Your task to perform on an android device: Clear the cart on amazon. Search for "logitech g933" on amazon, select the first entry, add it to the cart, then select checkout. Image 0: 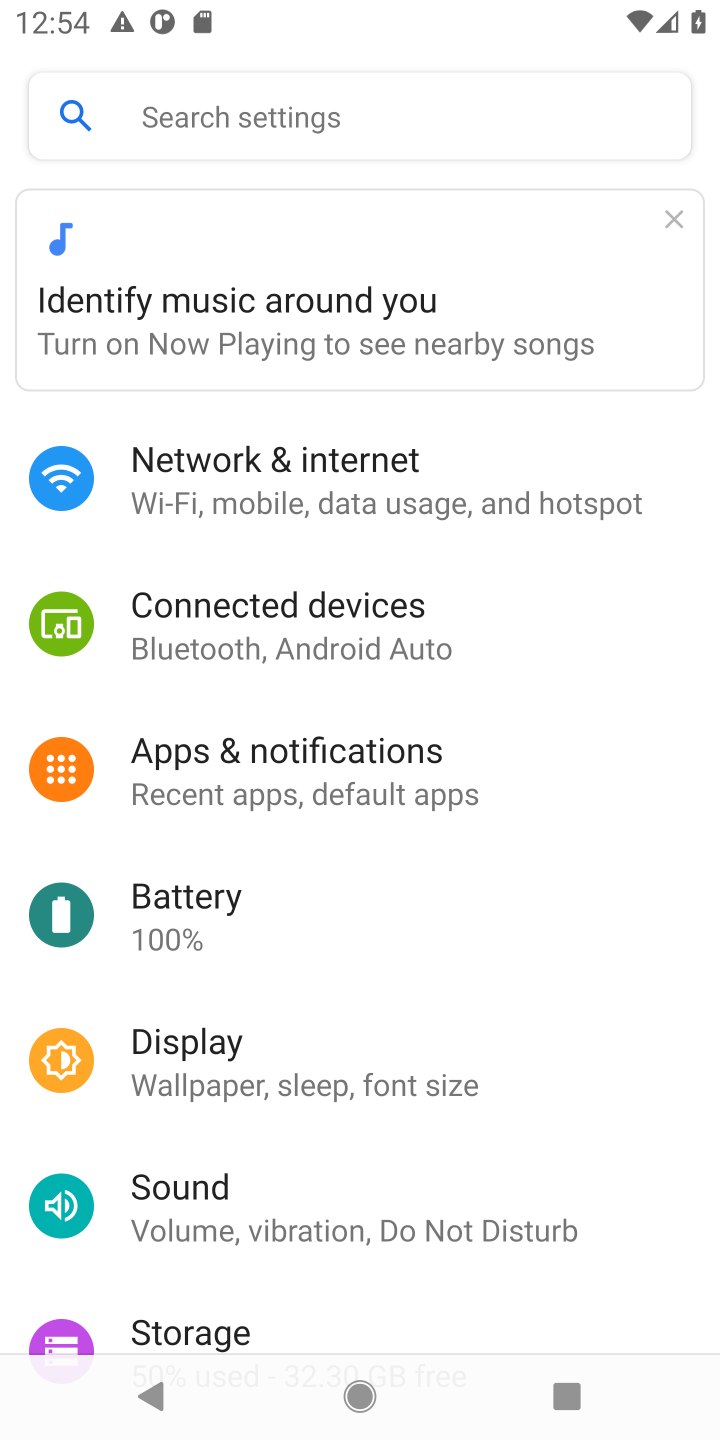
Step 0: press home button
Your task to perform on an android device: Clear the cart on amazon. Search for "logitech g933" on amazon, select the first entry, add it to the cart, then select checkout. Image 1: 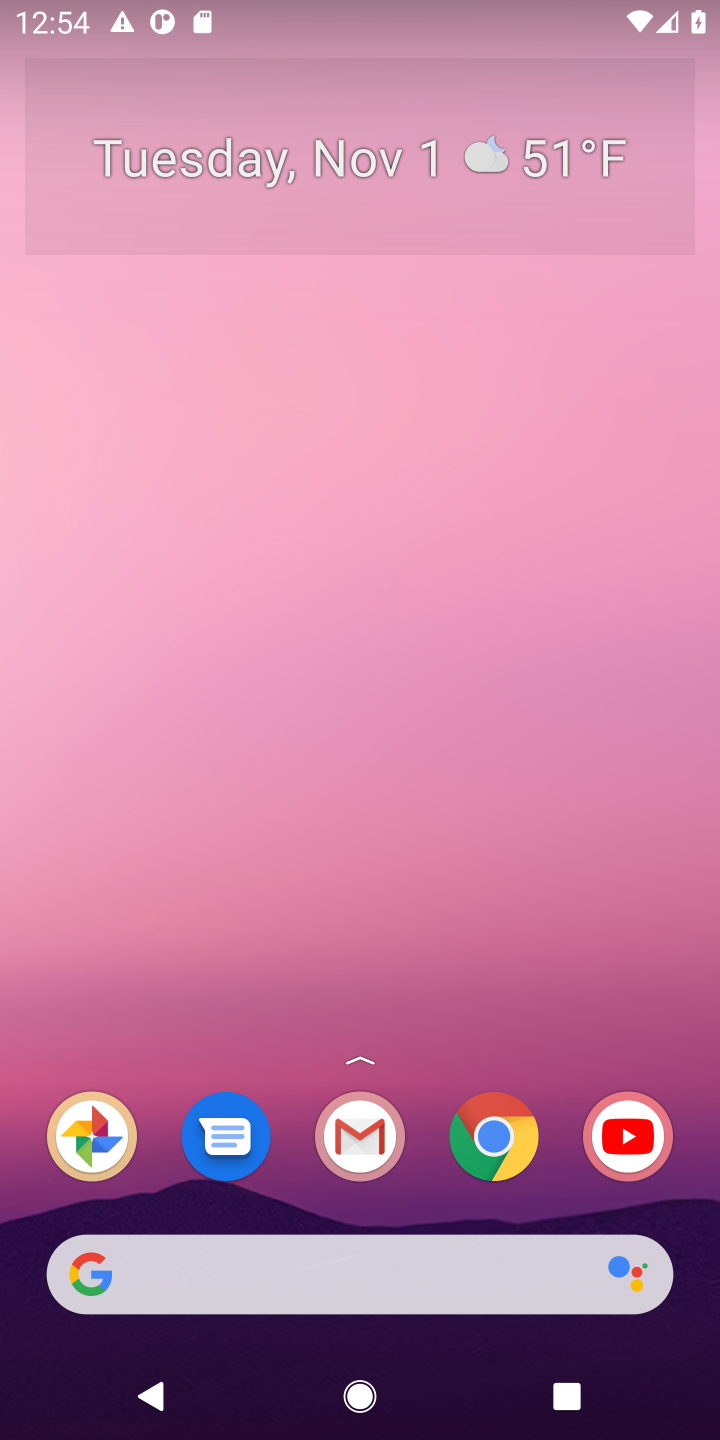
Step 1: click (166, 1276)
Your task to perform on an android device: Clear the cart on amazon. Search for "logitech g933" on amazon, select the first entry, add it to the cart, then select checkout. Image 2: 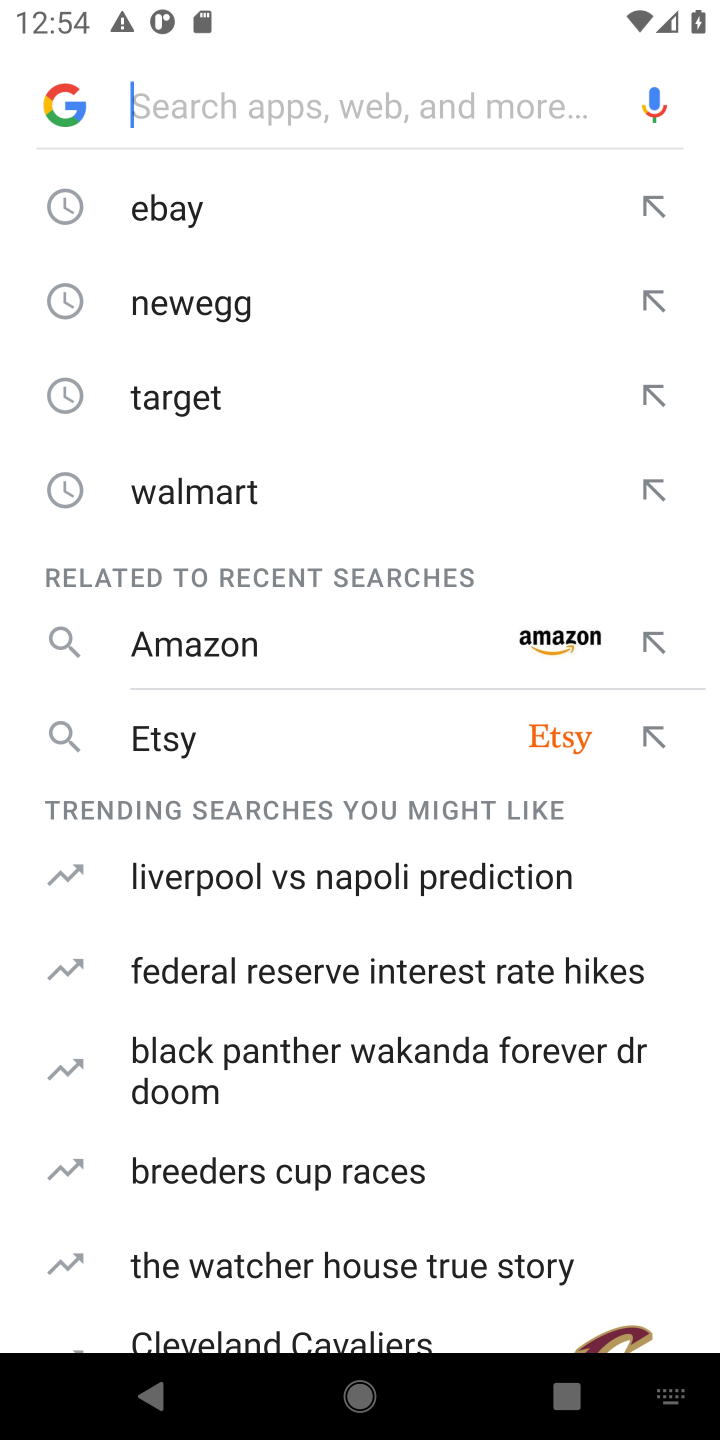
Step 2: type "amazon"
Your task to perform on an android device: Clear the cart on amazon. Search for "logitech g933" on amazon, select the first entry, add it to the cart, then select checkout. Image 3: 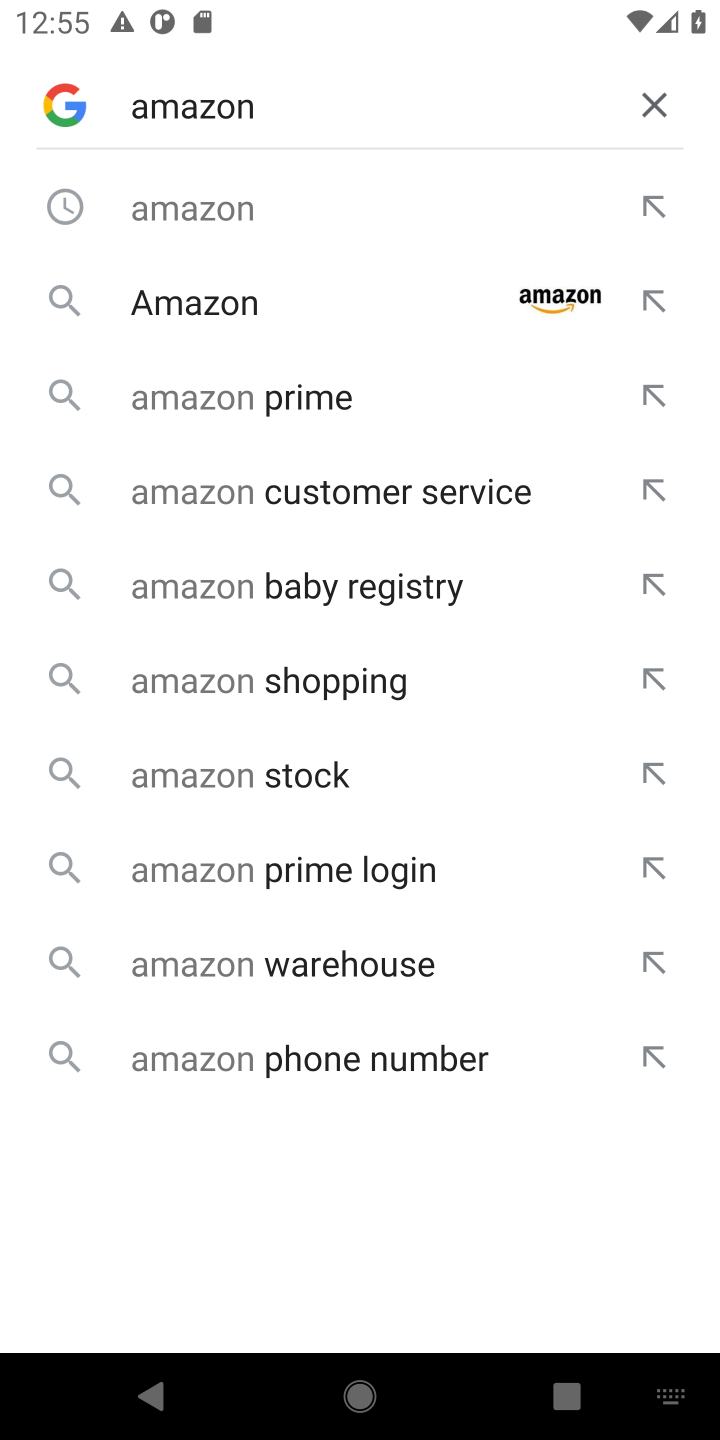
Step 3: press enter
Your task to perform on an android device: Clear the cart on amazon. Search for "logitech g933" on amazon, select the first entry, add it to the cart, then select checkout. Image 4: 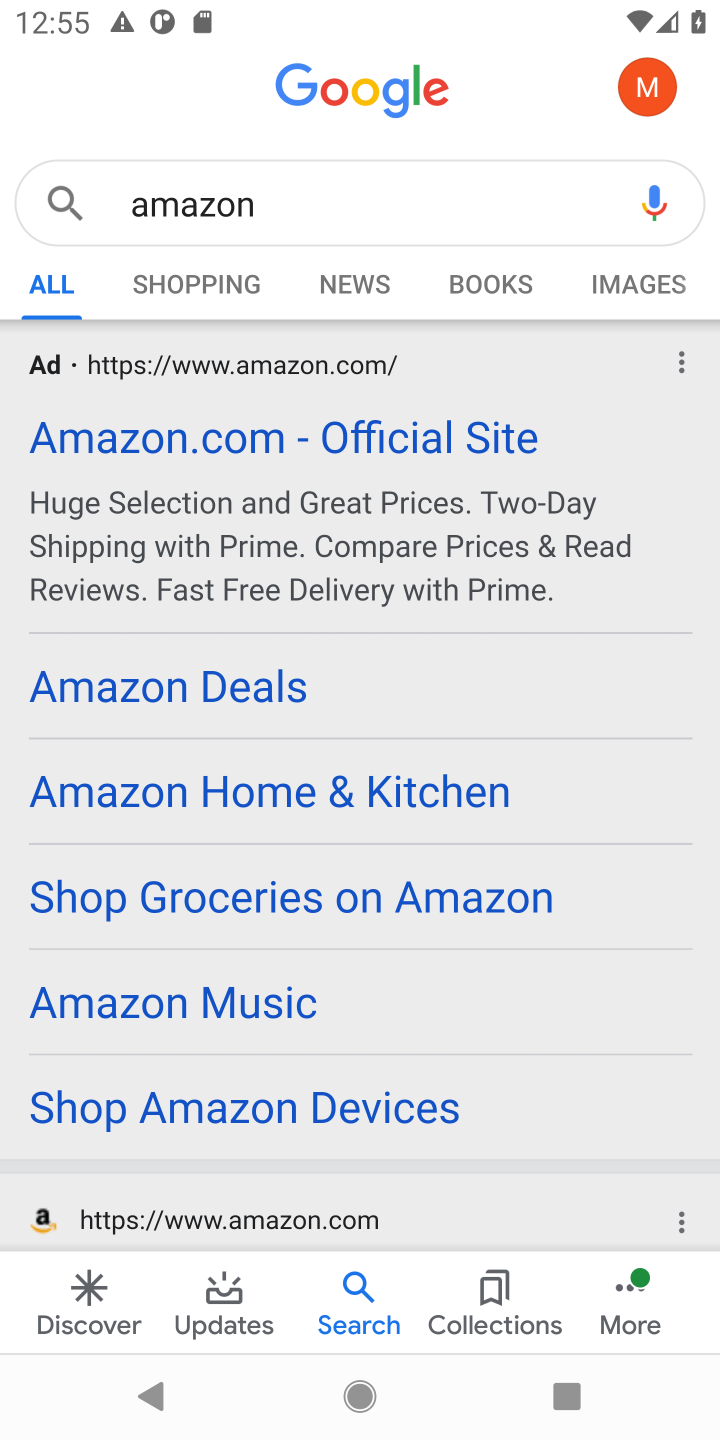
Step 4: click (207, 462)
Your task to perform on an android device: Clear the cart on amazon. Search for "logitech g933" on amazon, select the first entry, add it to the cart, then select checkout. Image 5: 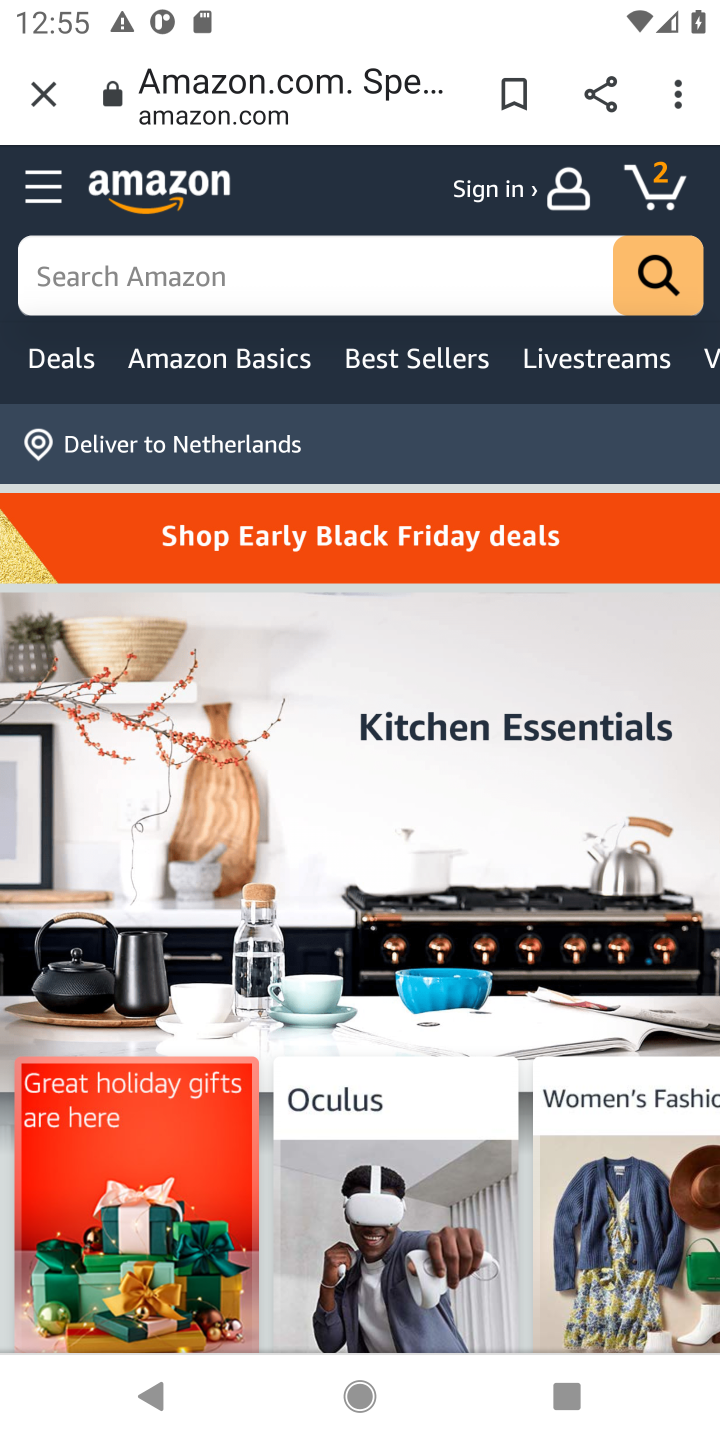
Step 5: click (131, 271)
Your task to perform on an android device: Clear the cart on amazon. Search for "logitech g933" on amazon, select the first entry, add it to the cart, then select checkout. Image 6: 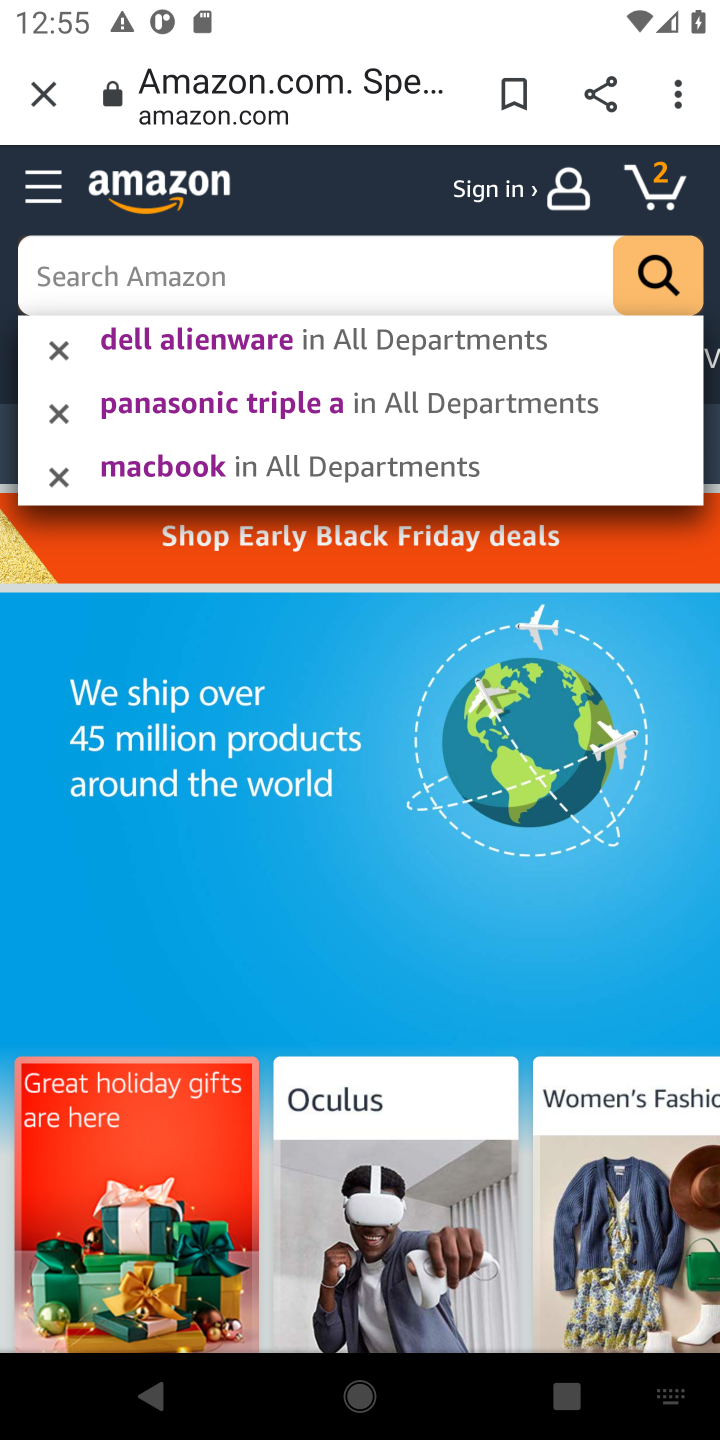
Step 6: type "logitech g933"
Your task to perform on an android device: Clear the cart on amazon. Search for "logitech g933" on amazon, select the first entry, add it to the cart, then select checkout. Image 7: 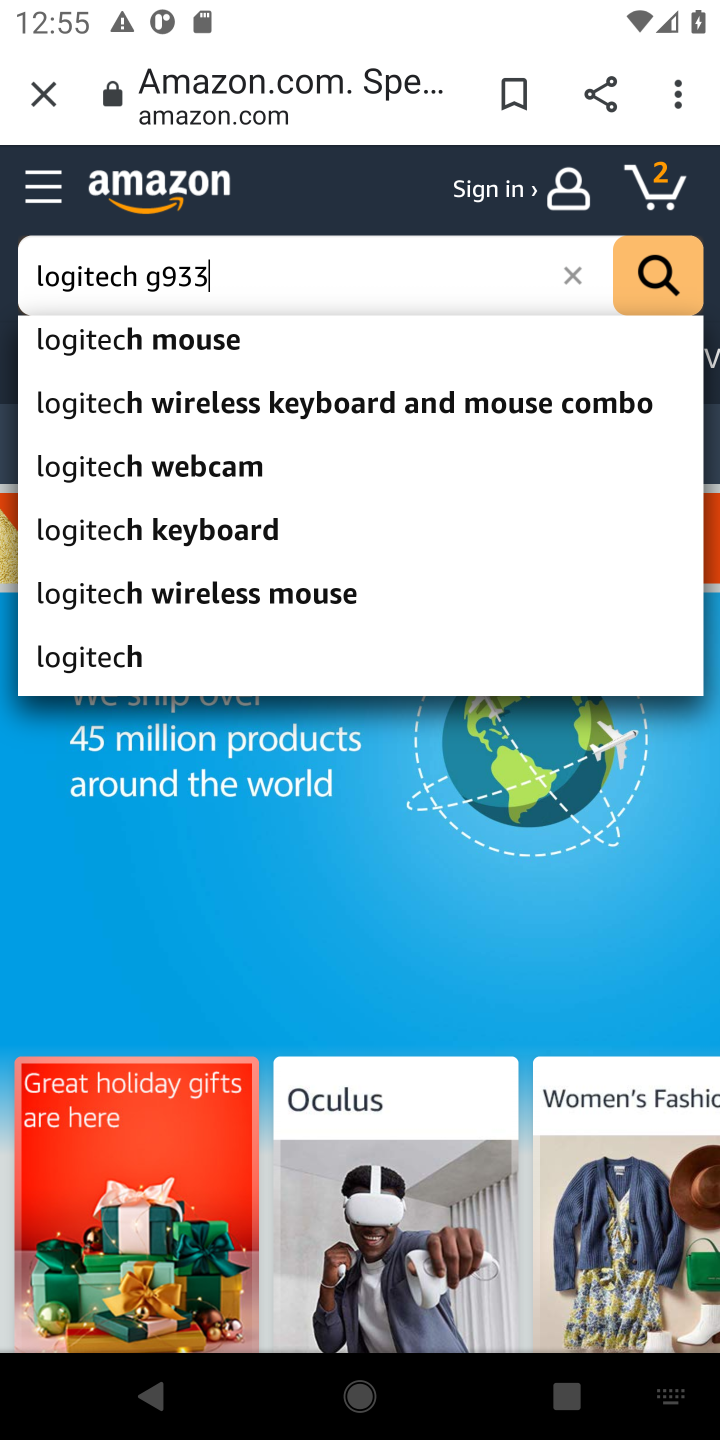
Step 7: press enter
Your task to perform on an android device: Clear the cart on amazon. Search for "logitech g933" on amazon, select the first entry, add it to the cart, then select checkout. Image 8: 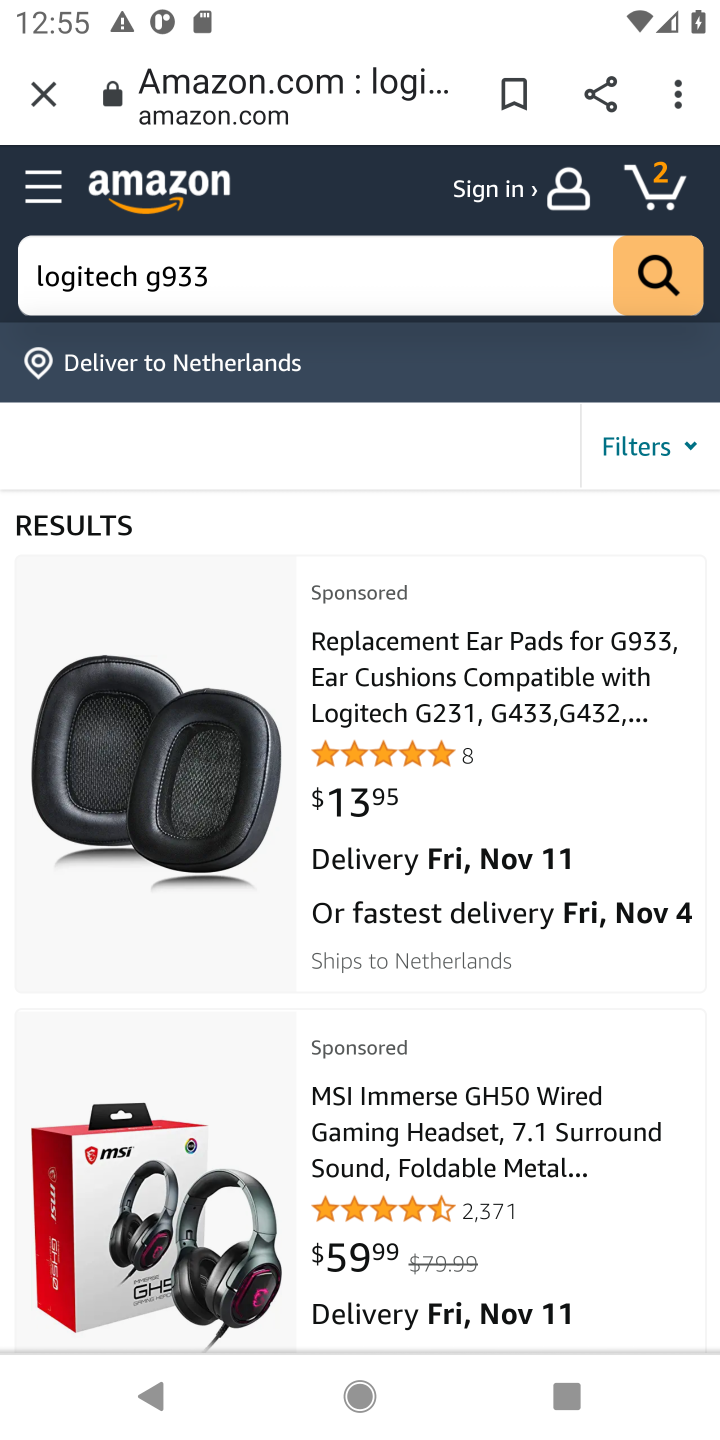
Step 8: drag from (576, 1132) to (583, 564)
Your task to perform on an android device: Clear the cart on amazon. Search for "logitech g933" on amazon, select the first entry, add it to the cart, then select checkout. Image 9: 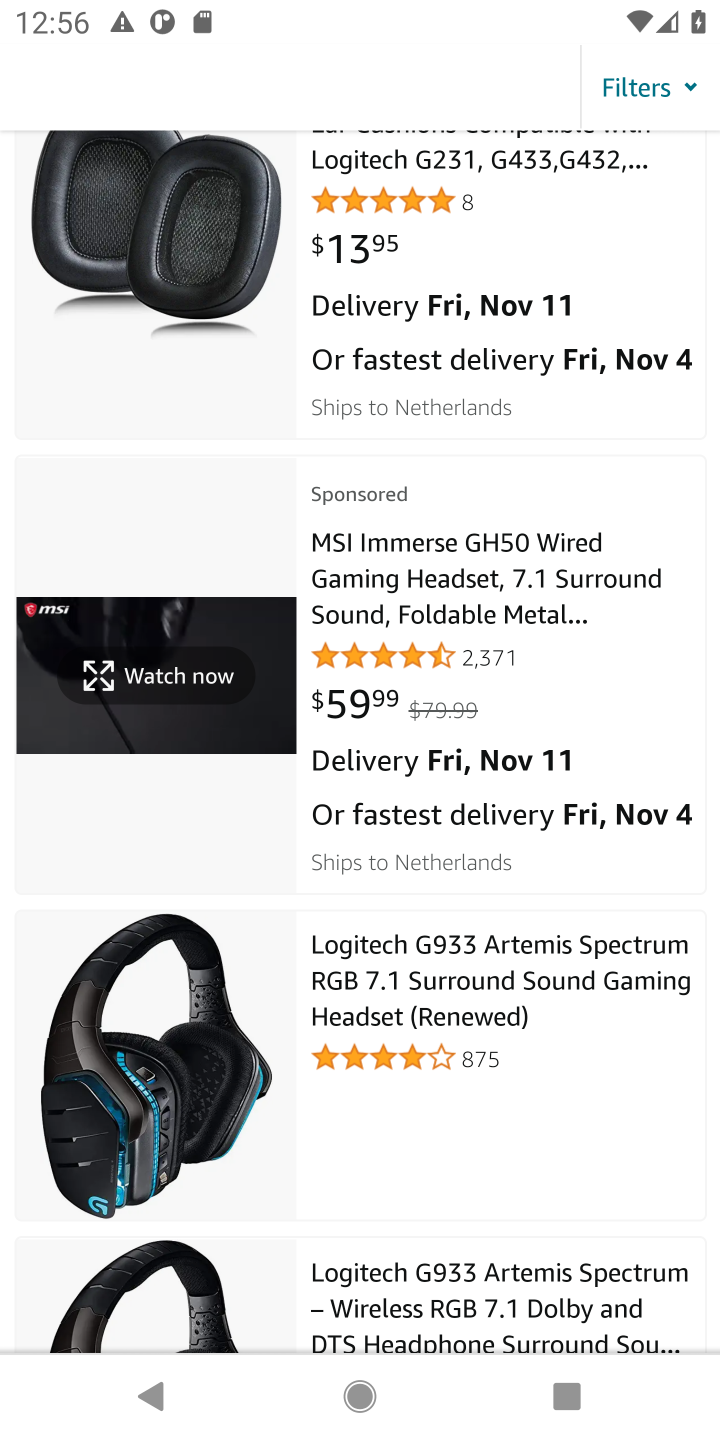
Step 9: click (488, 963)
Your task to perform on an android device: Clear the cart on amazon. Search for "logitech g933" on amazon, select the first entry, add it to the cart, then select checkout. Image 10: 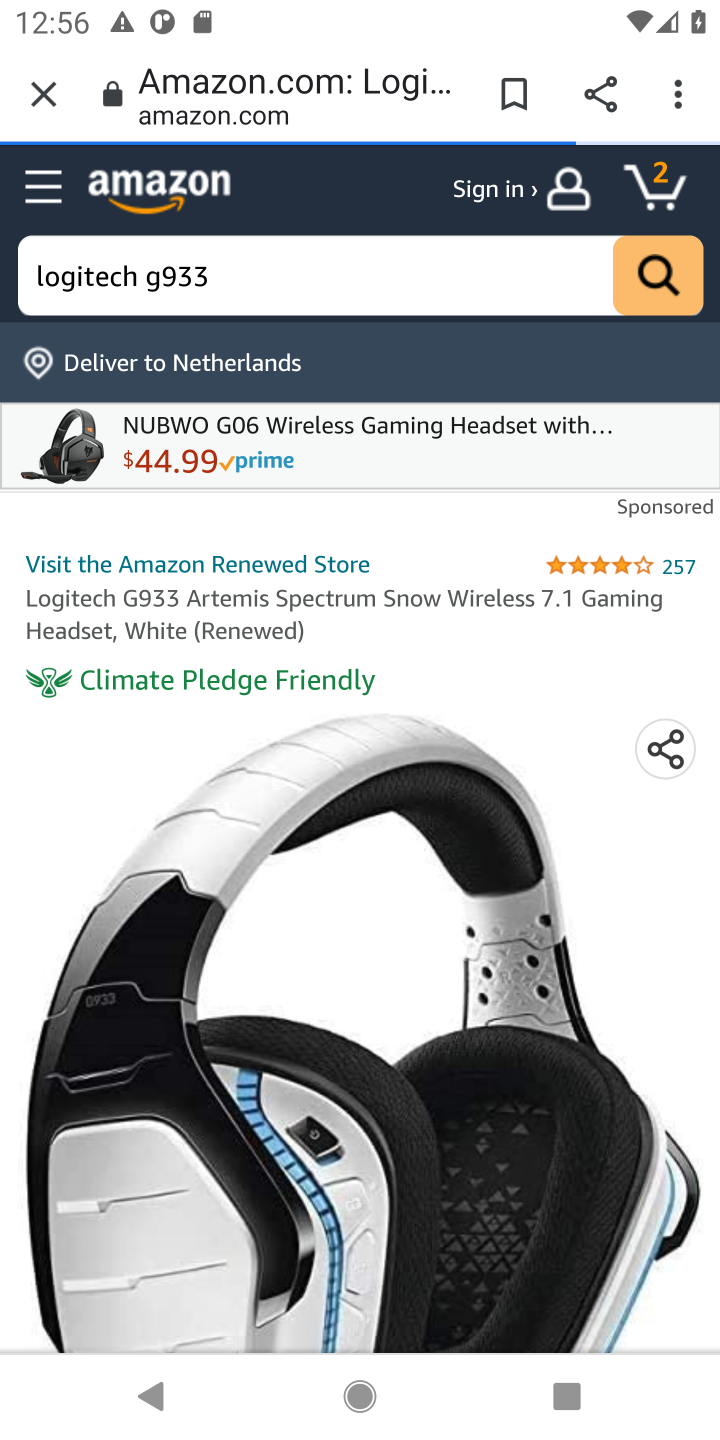
Step 10: task complete